Your task to perform on an android device: open app "Messenger Lite" (install if not already installed) and enter user name: "cataclysmic@outlook.com" and password: "victoriously" Image 0: 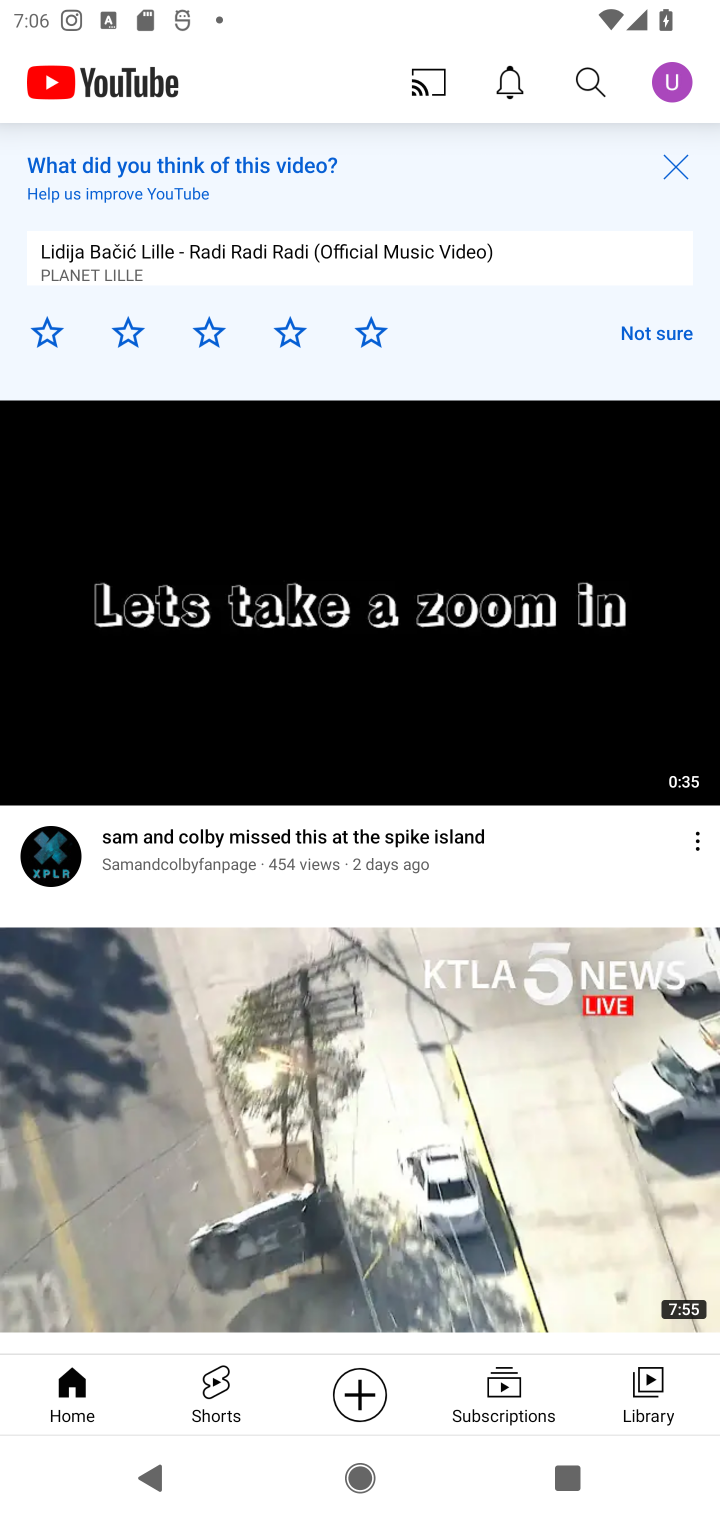
Step 0: press home button
Your task to perform on an android device: open app "Messenger Lite" (install if not already installed) and enter user name: "cataclysmic@outlook.com" and password: "victoriously" Image 1: 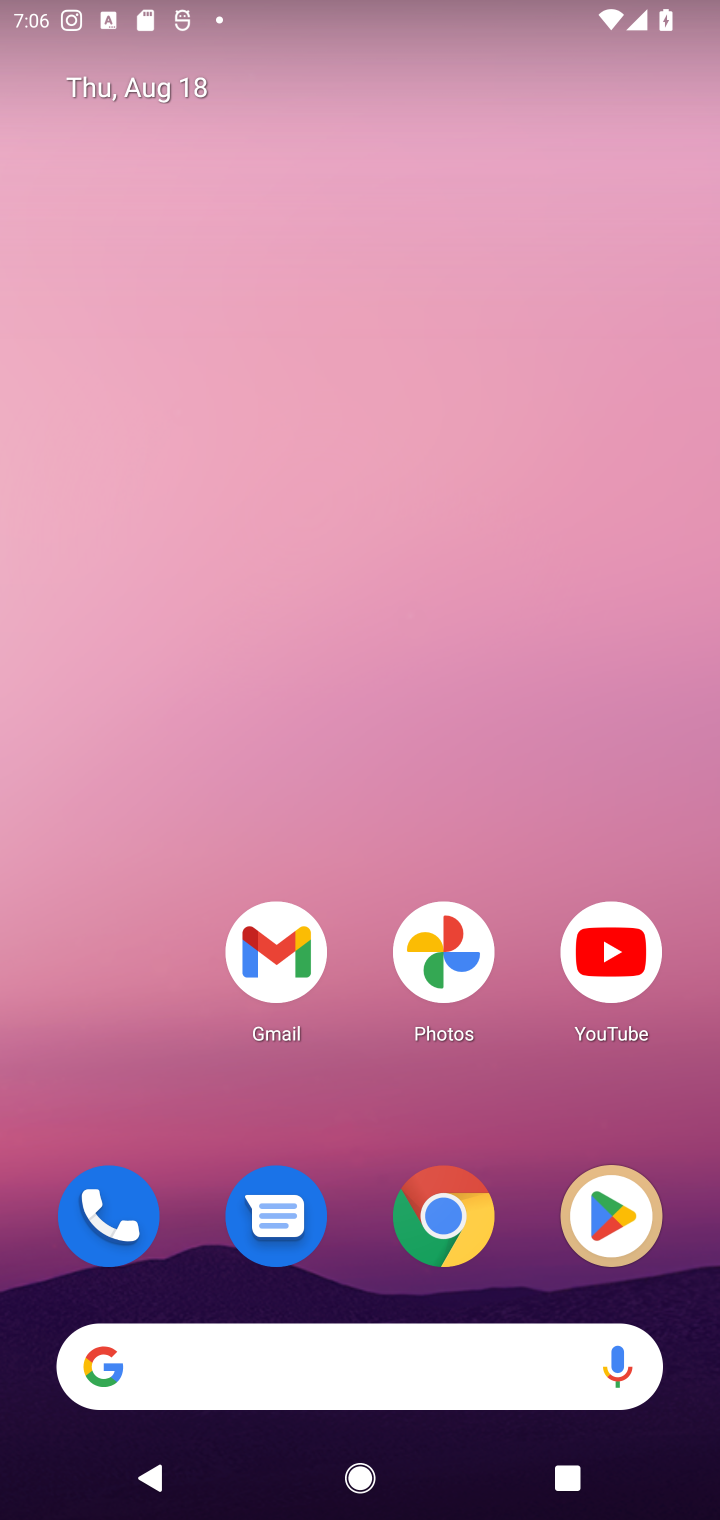
Step 1: click (594, 1227)
Your task to perform on an android device: open app "Messenger Lite" (install if not already installed) and enter user name: "cataclysmic@outlook.com" and password: "victoriously" Image 2: 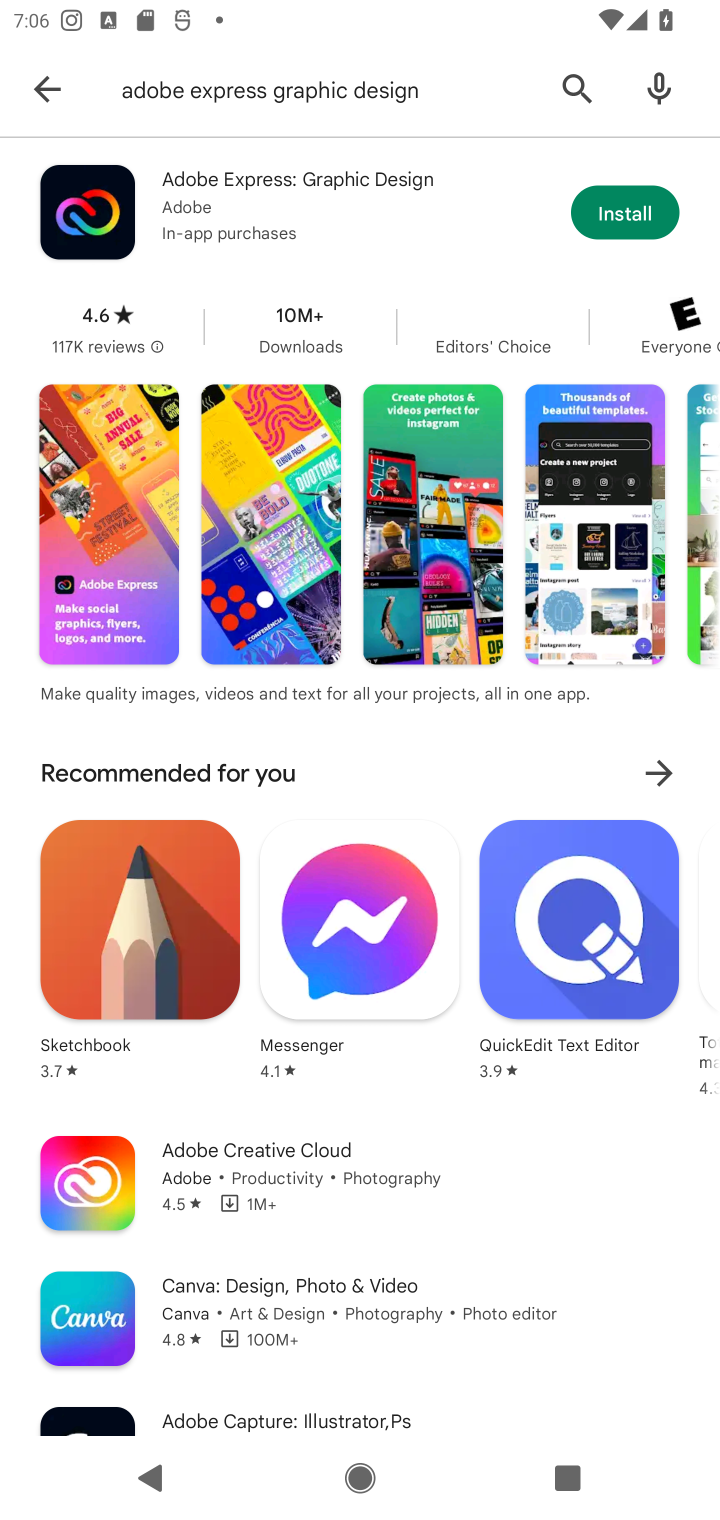
Step 2: click (569, 73)
Your task to perform on an android device: open app "Messenger Lite" (install if not already installed) and enter user name: "cataclysmic@outlook.com" and password: "victoriously" Image 3: 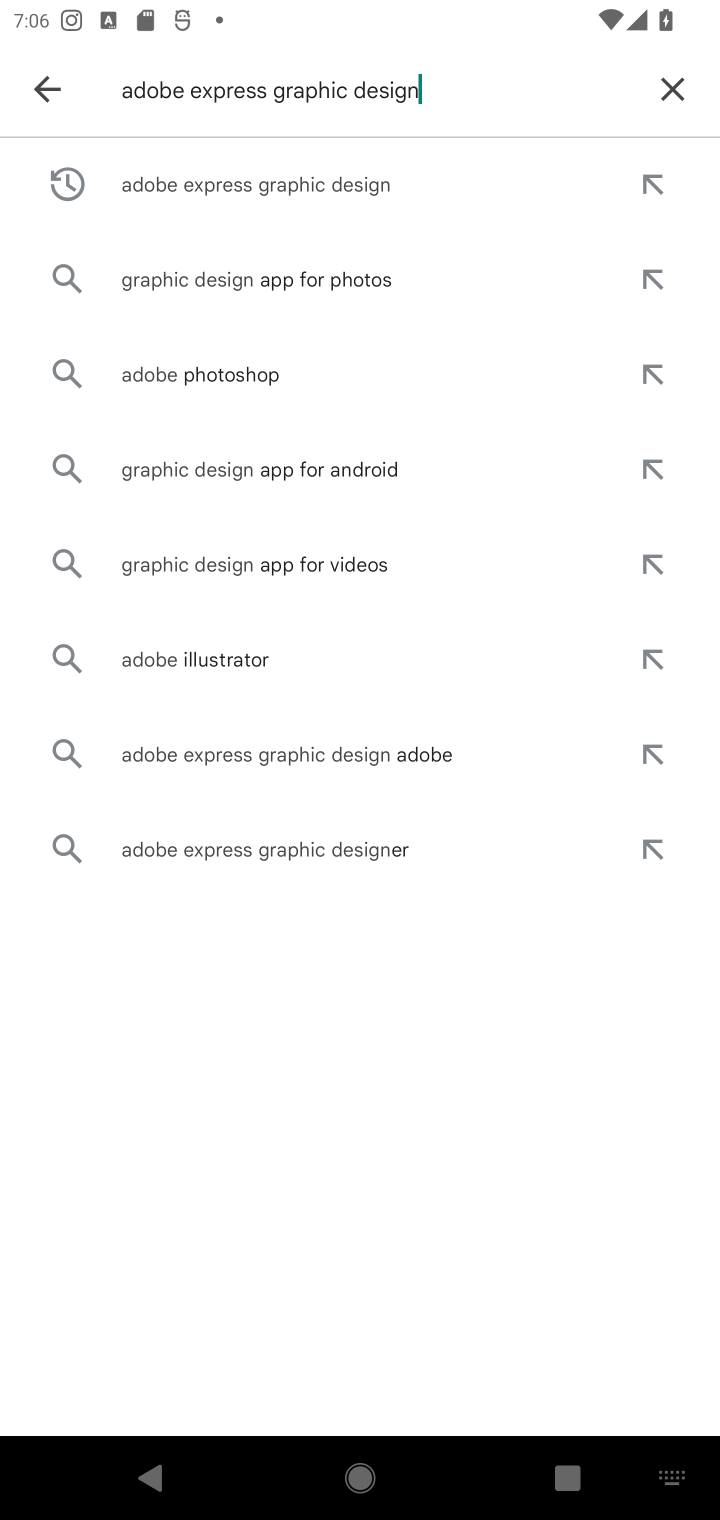
Step 3: click (673, 94)
Your task to perform on an android device: open app "Messenger Lite" (install if not already installed) and enter user name: "cataclysmic@outlook.com" and password: "victoriously" Image 4: 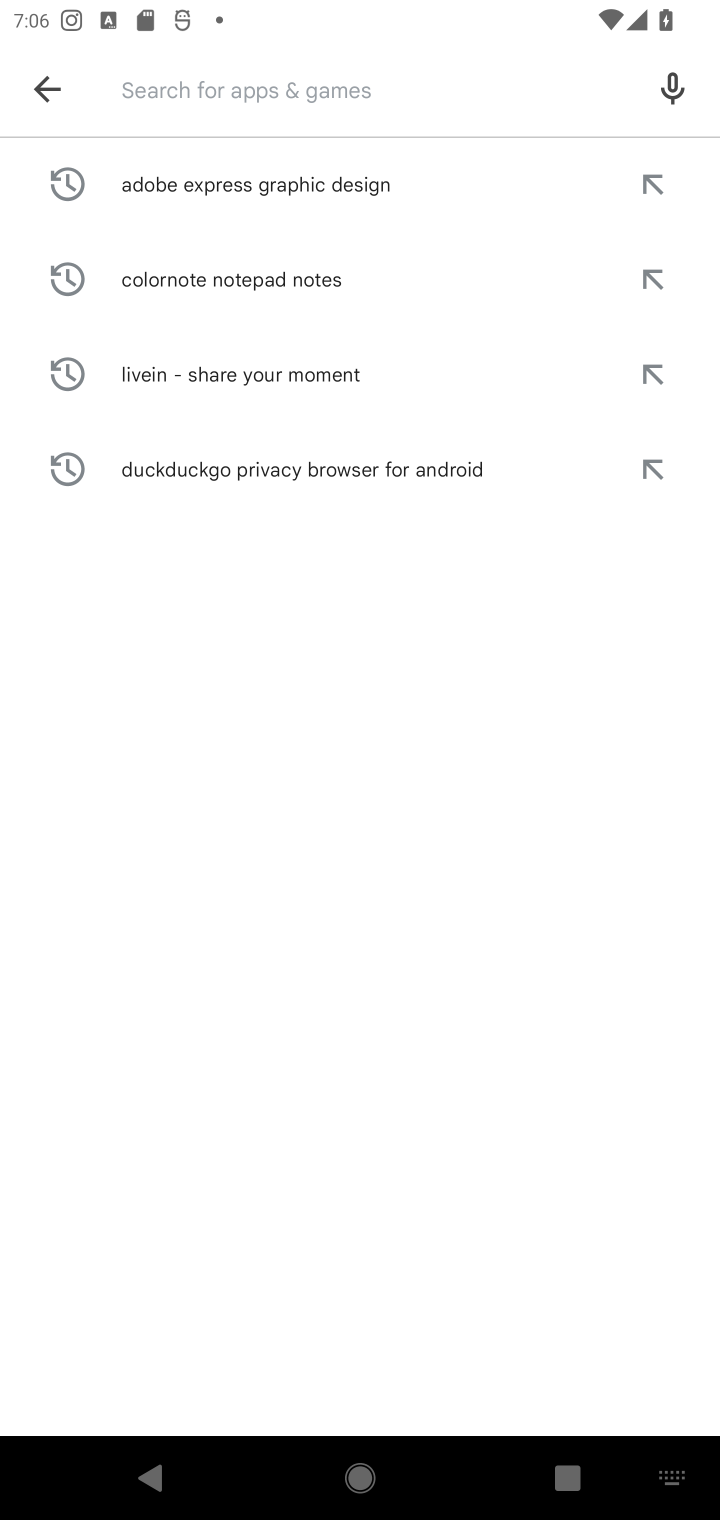
Step 4: type "Messenger Lite"
Your task to perform on an android device: open app "Messenger Lite" (install if not already installed) and enter user name: "cataclysmic@outlook.com" and password: "victoriously" Image 5: 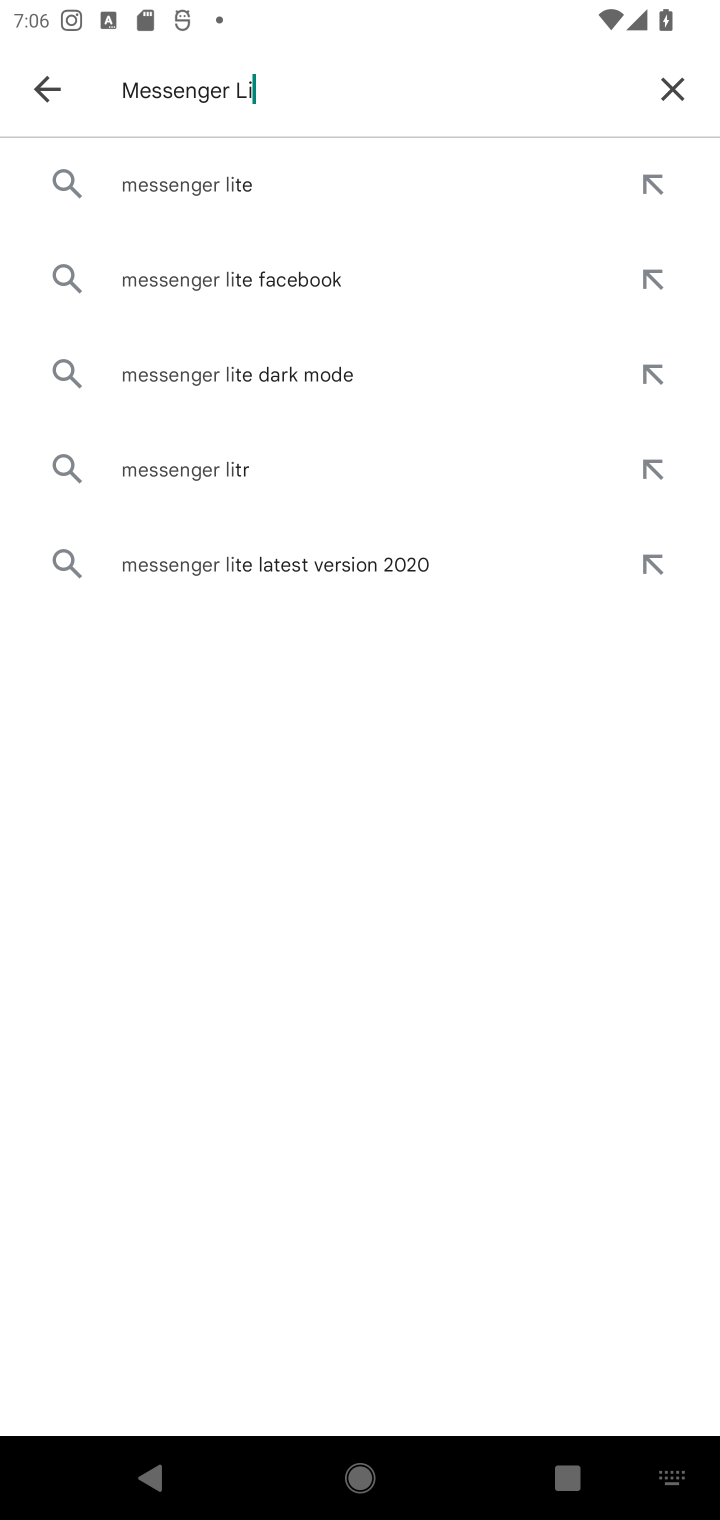
Step 5: type ""
Your task to perform on an android device: open app "Messenger Lite" (install if not already installed) and enter user name: "cataclysmic@outlook.com" and password: "victoriously" Image 6: 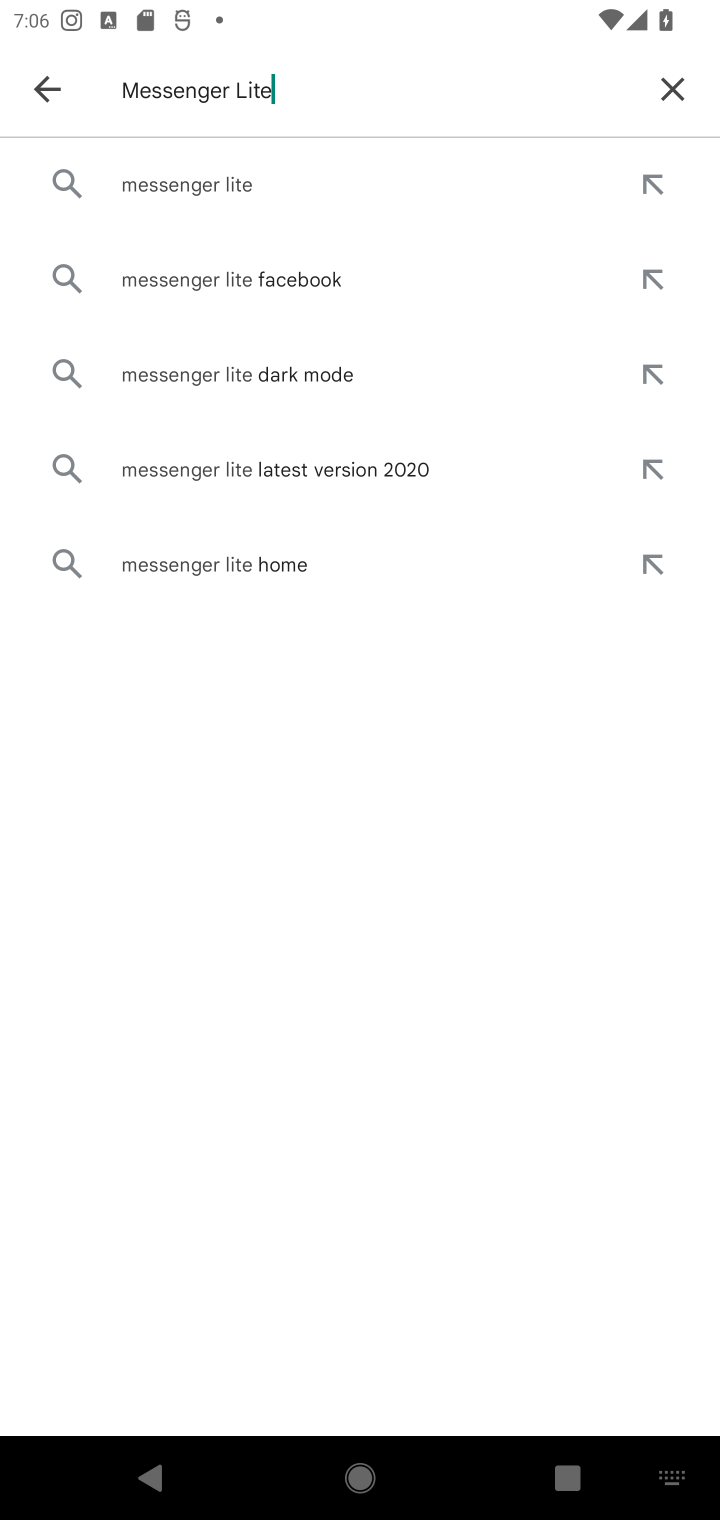
Step 6: click (314, 181)
Your task to perform on an android device: open app "Messenger Lite" (install if not already installed) and enter user name: "cataclysmic@outlook.com" and password: "victoriously" Image 7: 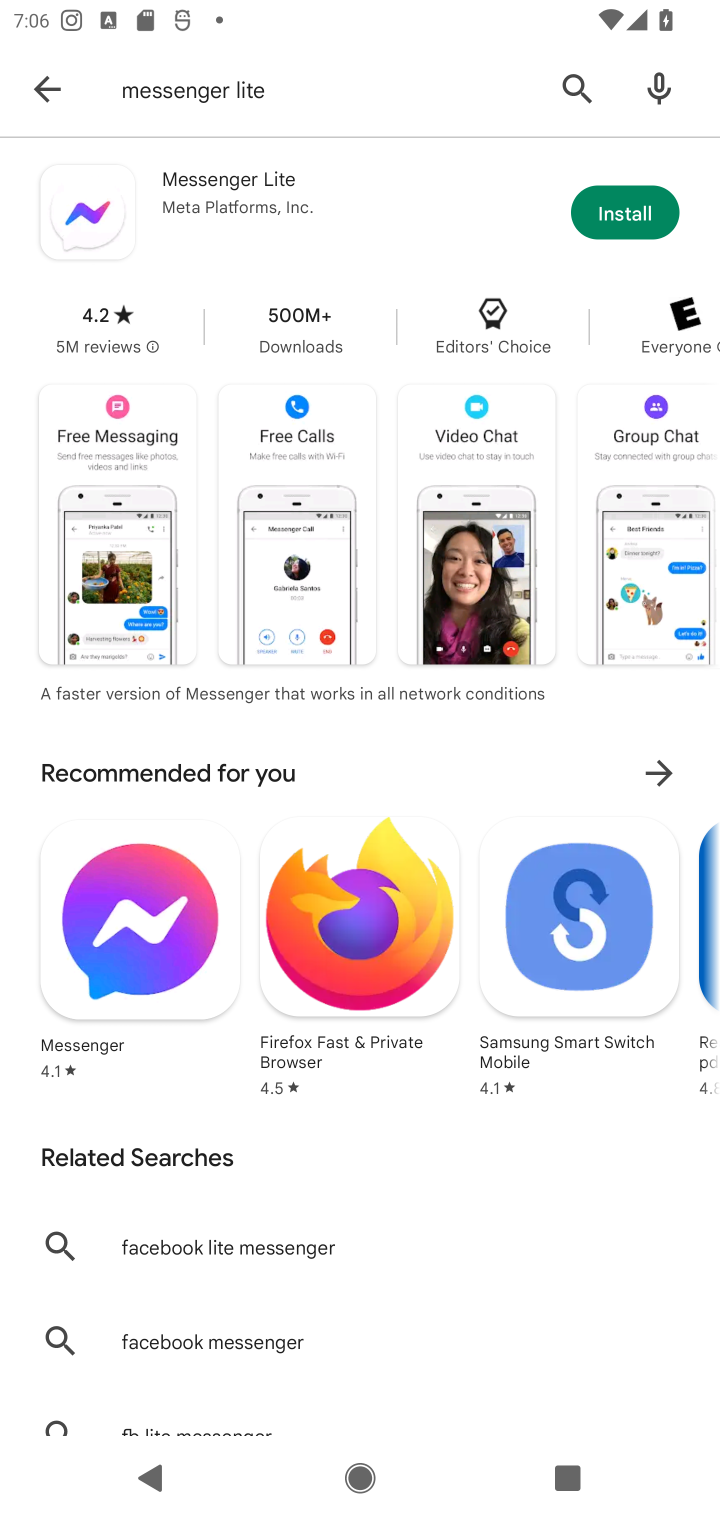
Step 7: click (625, 218)
Your task to perform on an android device: open app "Messenger Lite" (install if not already installed) and enter user name: "cataclysmic@outlook.com" and password: "victoriously" Image 8: 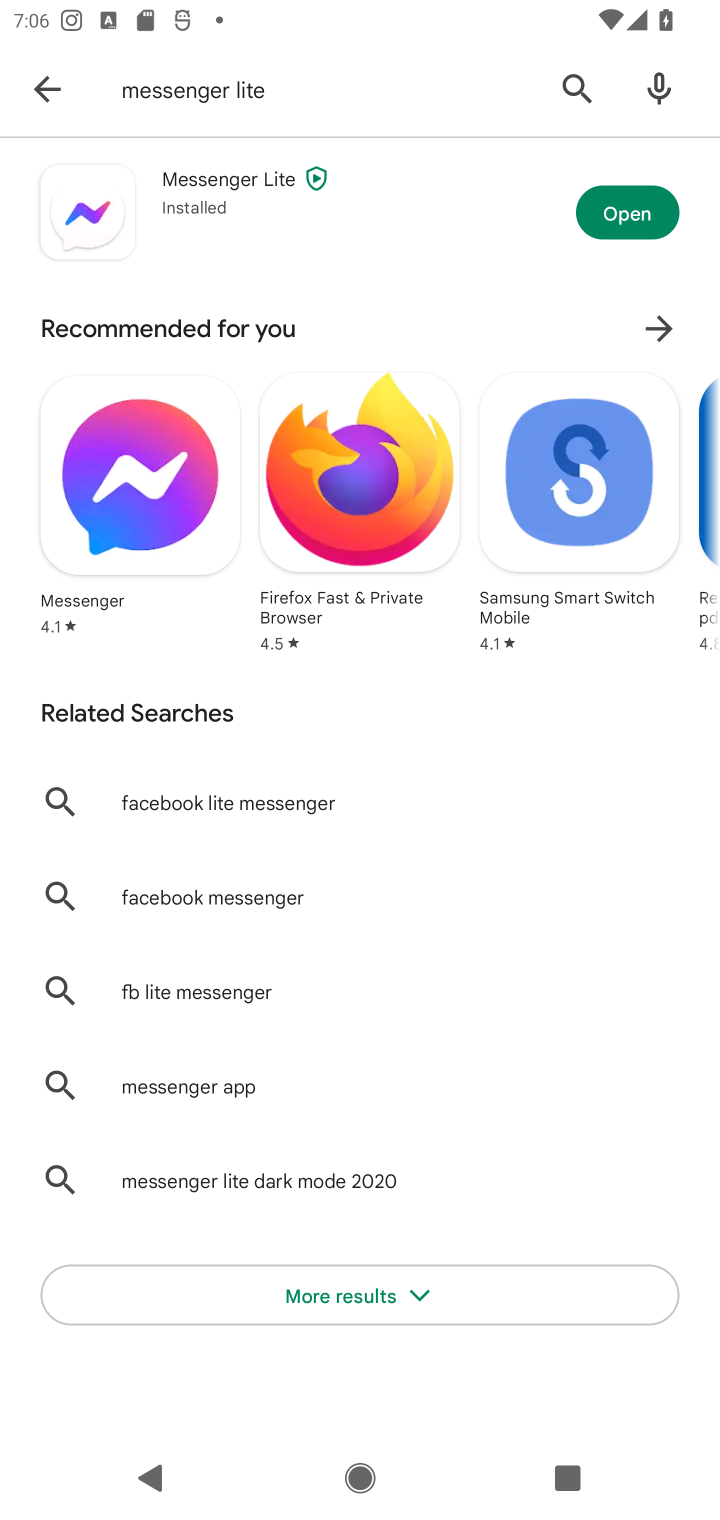
Step 8: click (601, 232)
Your task to perform on an android device: open app "Messenger Lite" (install if not already installed) and enter user name: "cataclysmic@outlook.com" and password: "victoriously" Image 9: 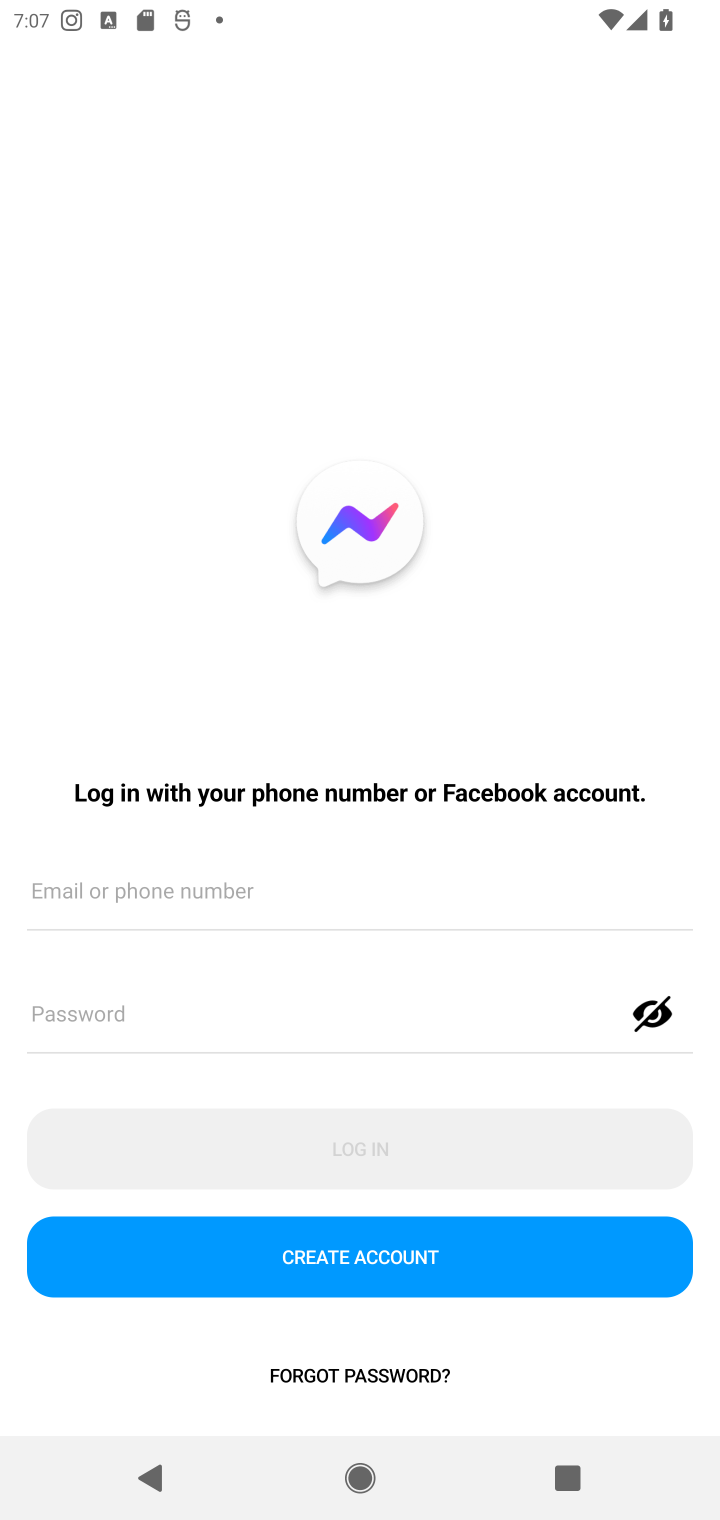
Step 9: task complete